Your task to perform on an android device: Open Google Maps Image 0: 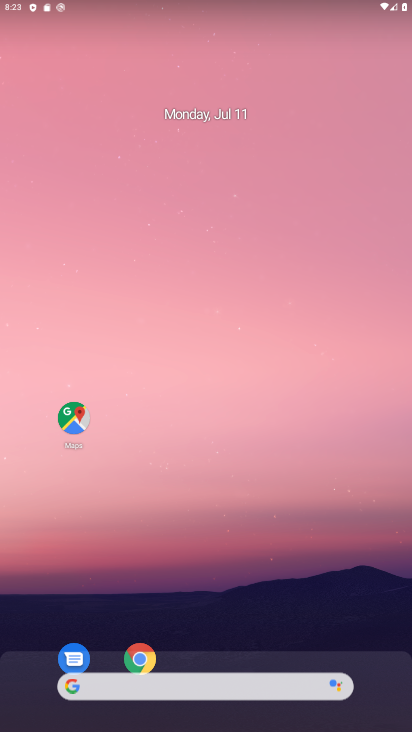
Step 0: drag from (215, 678) to (203, 550)
Your task to perform on an android device: Open Google Maps Image 1: 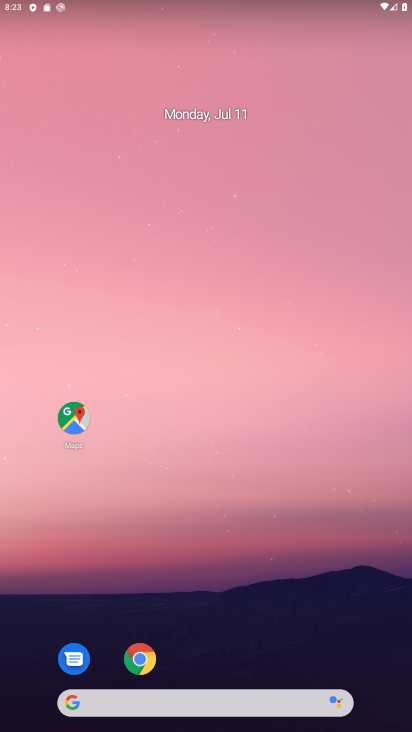
Step 1: click (70, 420)
Your task to perform on an android device: Open Google Maps Image 2: 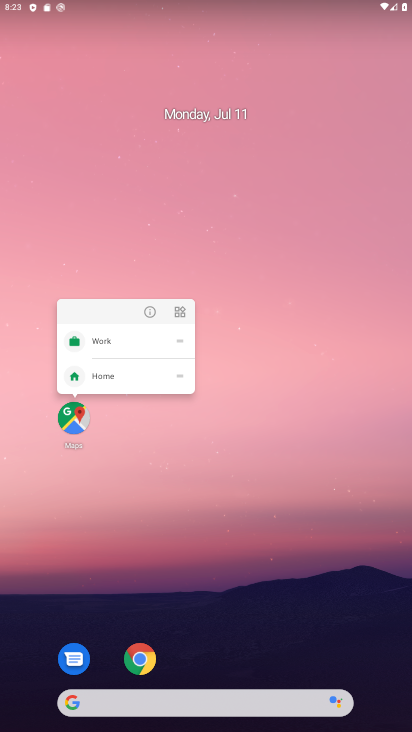
Step 2: click (70, 420)
Your task to perform on an android device: Open Google Maps Image 3: 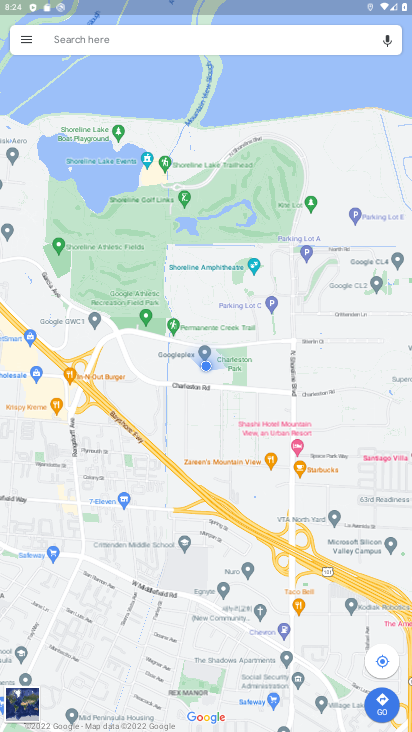
Step 3: task complete